Your task to perform on an android device: Search for seafood restaurants on Google Maps Image 0: 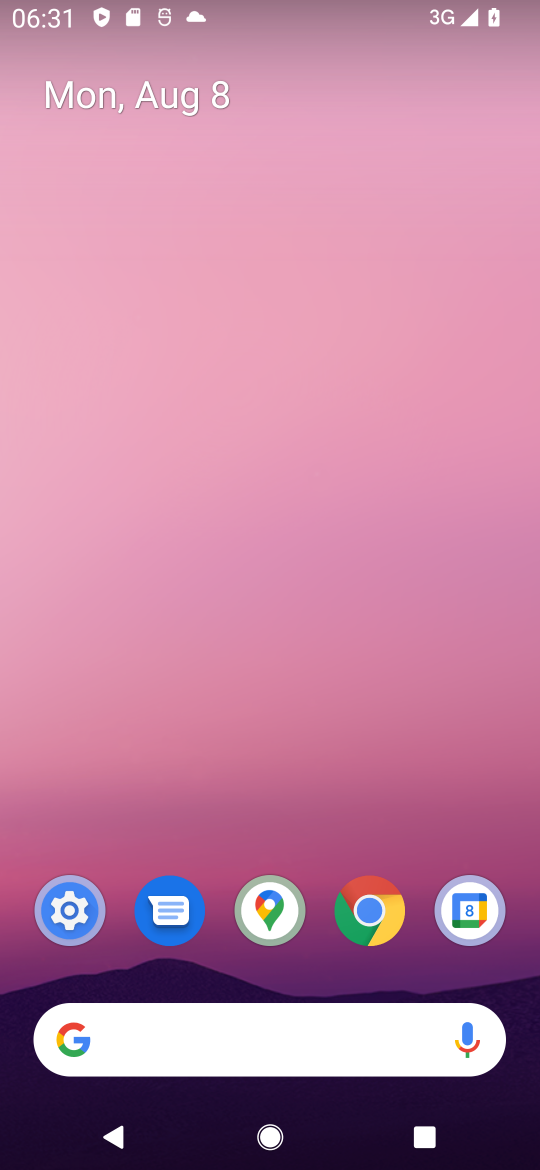
Step 0: click (269, 900)
Your task to perform on an android device: Search for seafood restaurants on Google Maps Image 1: 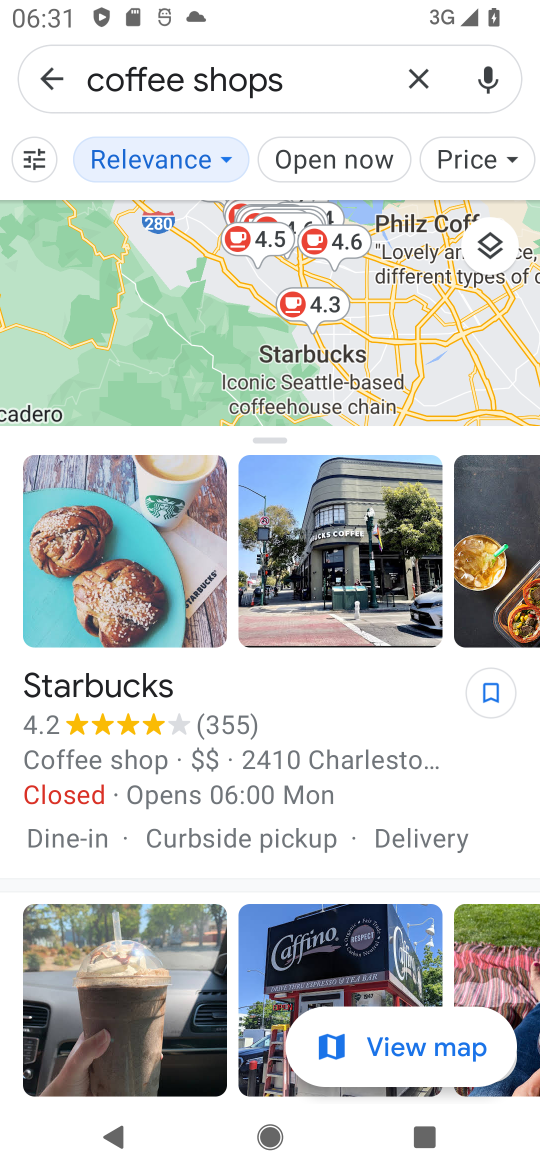
Step 1: click (415, 78)
Your task to perform on an android device: Search for seafood restaurants on Google Maps Image 2: 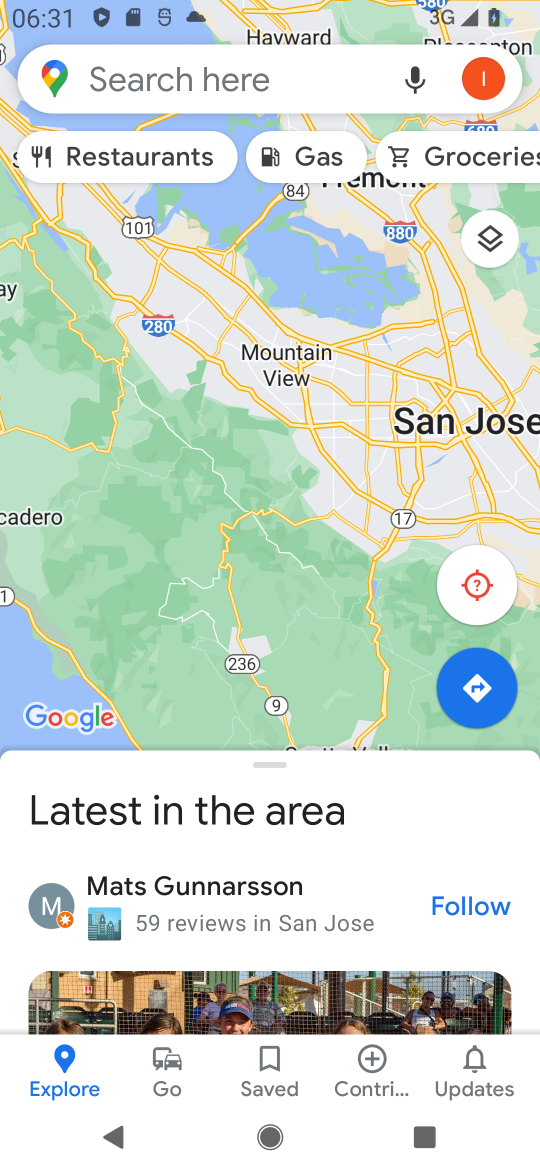
Step 2: click (224, 87)
Your task to perform on an android device: Search for seafood restaurants on Google Maps Image 3: 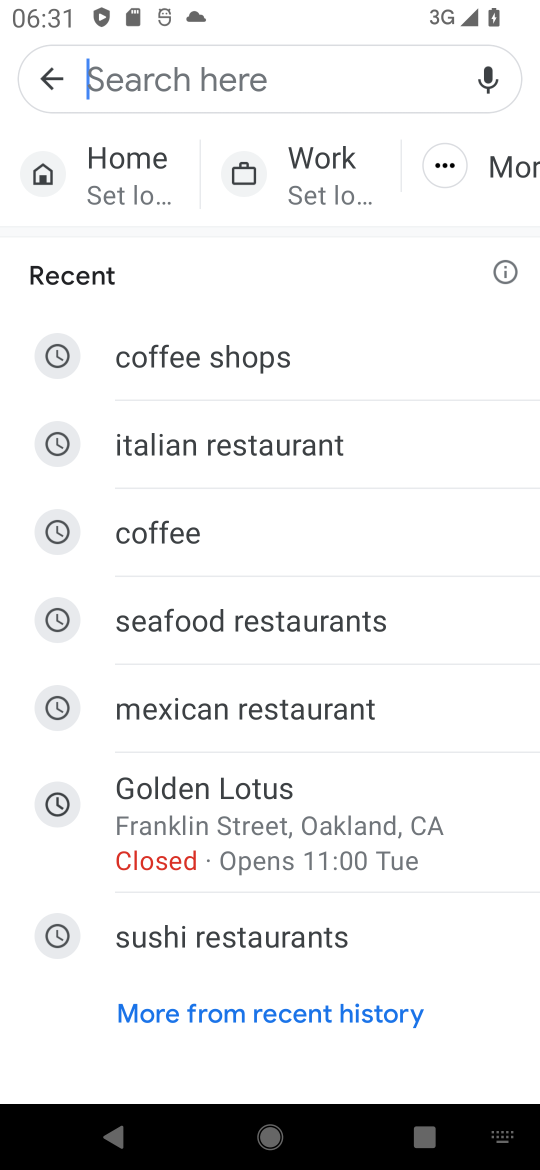
Step 3: type "seafood restaurants"
Your task to perform on an android device: Search for seafood restaurants on Google Maps Image 4: 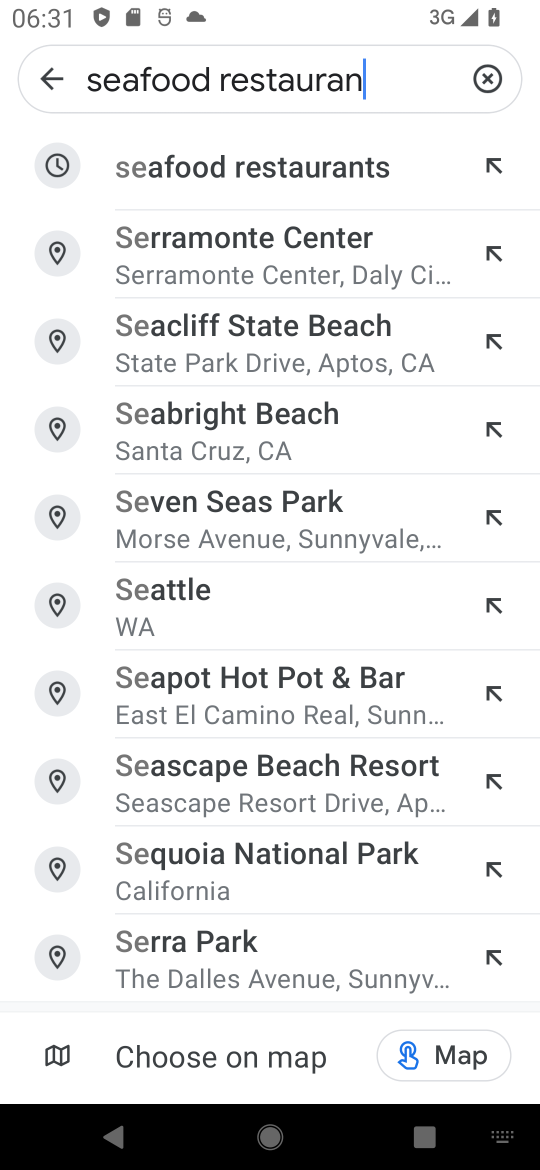
Step 4: type ""
Your task to perform on an android device: Search for seafood restaurants on Google Maps Image 5: 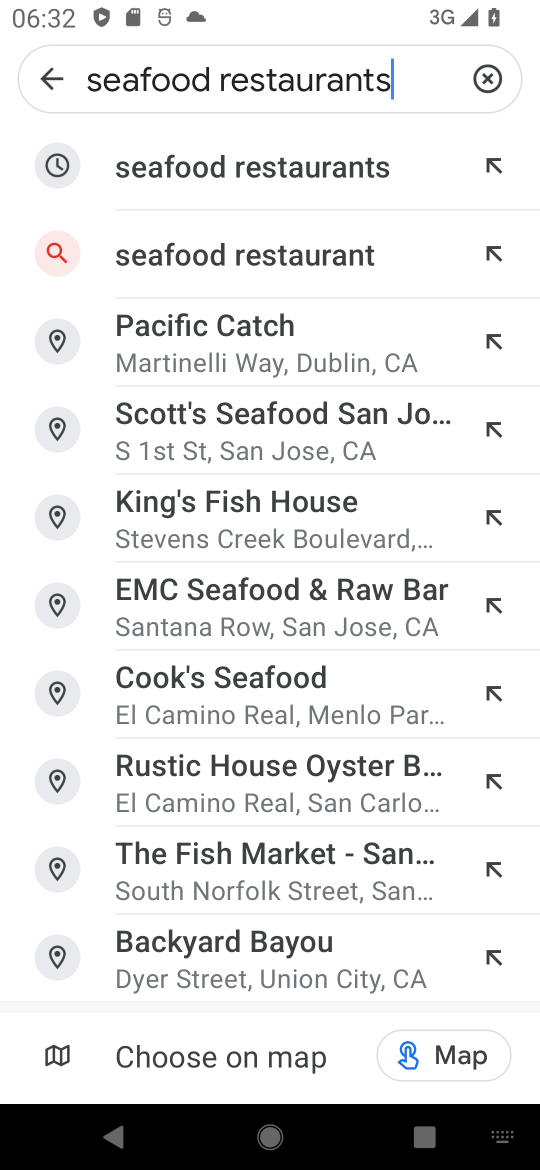
Step 5: click (220, 164)
Your task to perform on an android device: Search for seafood restaurants on Google Maps Image 6: 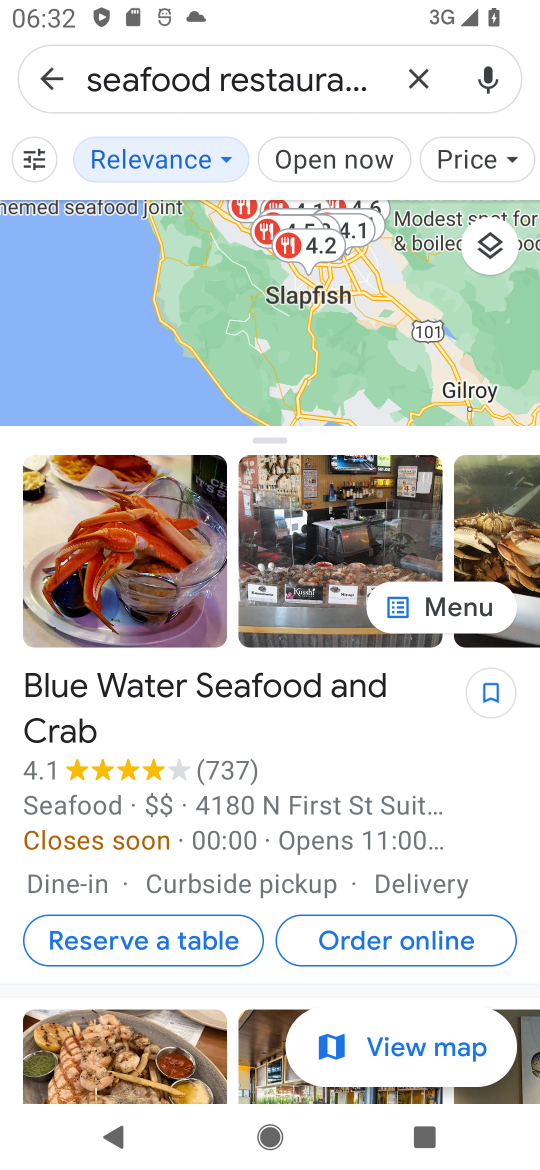
Step 6: task complete